Your task to perform on an android device: Show me productivity apps on the Play Store Image 0: 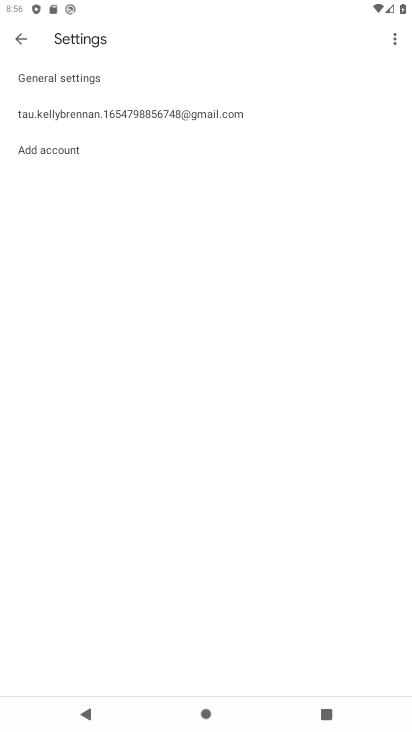
Step 0: press home button
Your task to perform on an android device: Show me productivity apps on the Play Store Image 1: 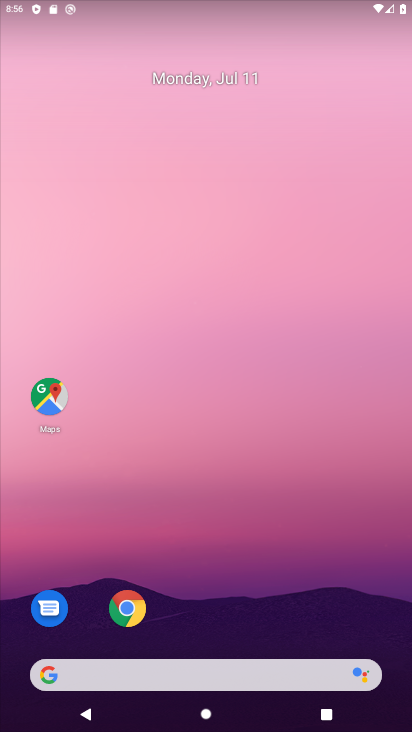
Step 1: drag from (159, 675) to (180, 60)
Your task to perform on an android device: Show me productivity apps on the Play Store Image 2: 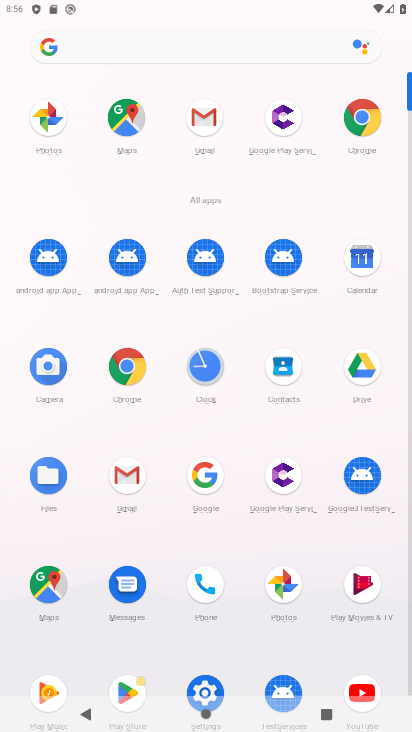
Step 2: click (119, 682)
Your task to perform on an android device: Show me productivity apps on the Play Store Image 3: 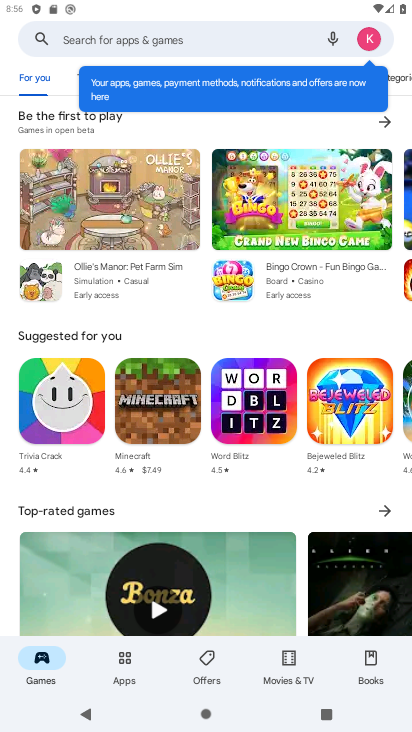
Step 3: click (115, 659)
Your task to perform on an android device: Show me productivity apps on the Play Store Image 4: 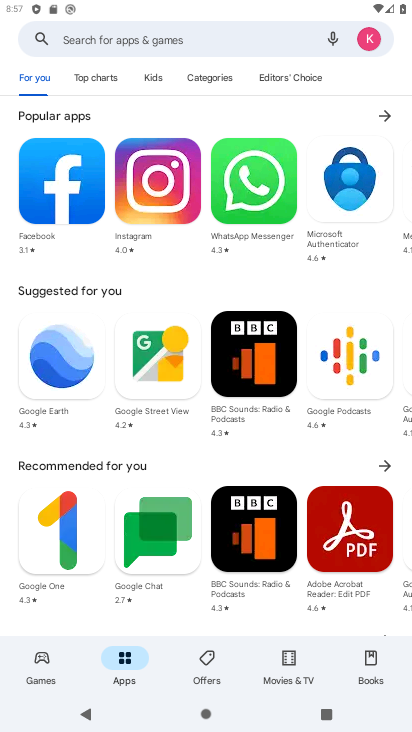
Step 4: click (188, 73)
Your task to perform on an android device: Show me productivity apps on the Play Store Image 5: 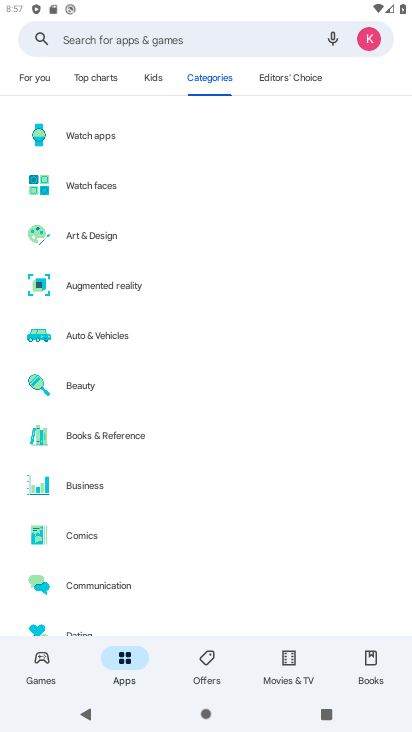
Step 5: drag from (126, 574) to (143, 8)
Your task to perform on an android device: Show me productivity apps on the Play Store Image 6: 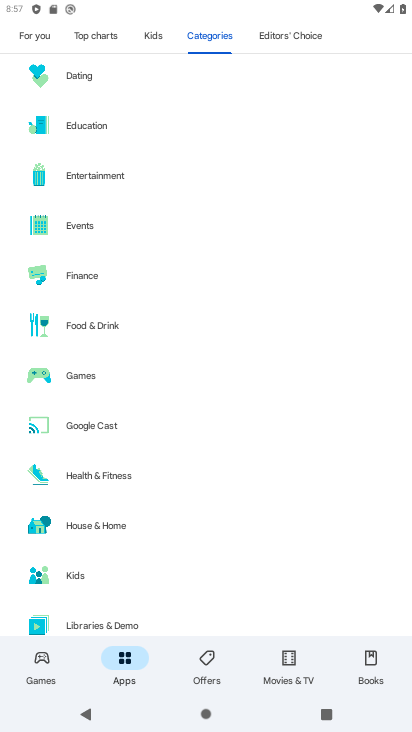
Step 6: drag from (155, 573) to (140, 153)
Your task to perform on an android device: Show me productivity apps on the Play Store Image 7: 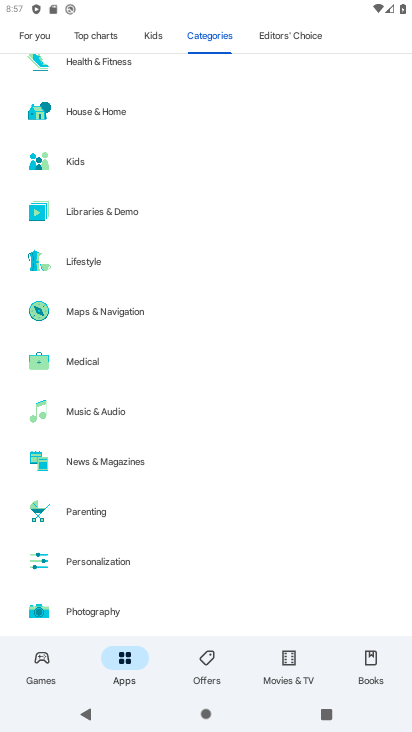
Step 7: drag from (122, 604) to (124, 129)
Your task to perform on an android device: Show me productivity apps on the Play Store Image 8: 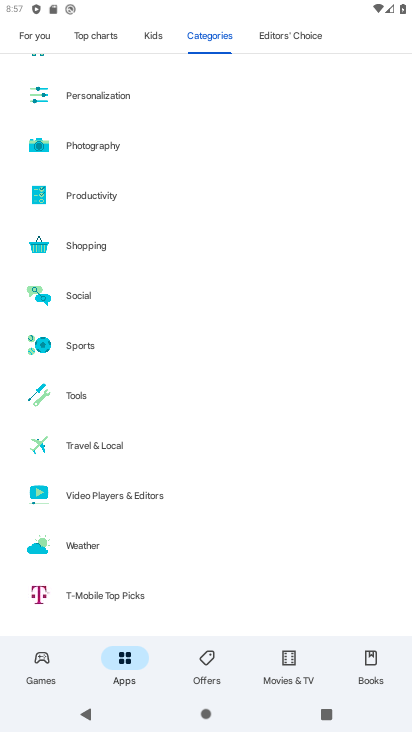
Step 8: click (112, 201)
Your task to perform on an android device: Show me productivity apps on the Play Store Image 9: 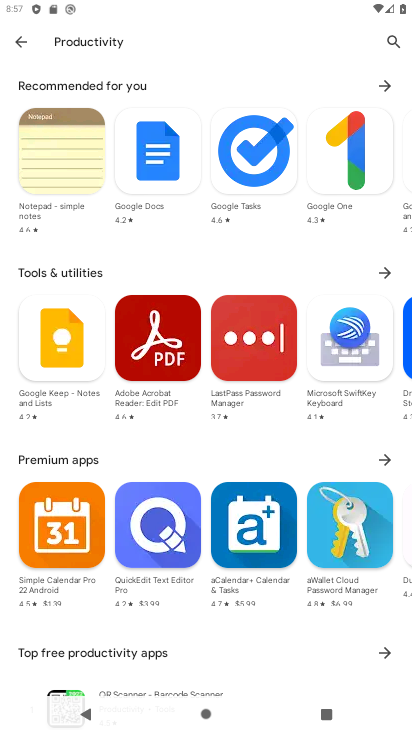
Step 9: task complete